Your task to perform on an android device: Turn off the flashlight Image 0: 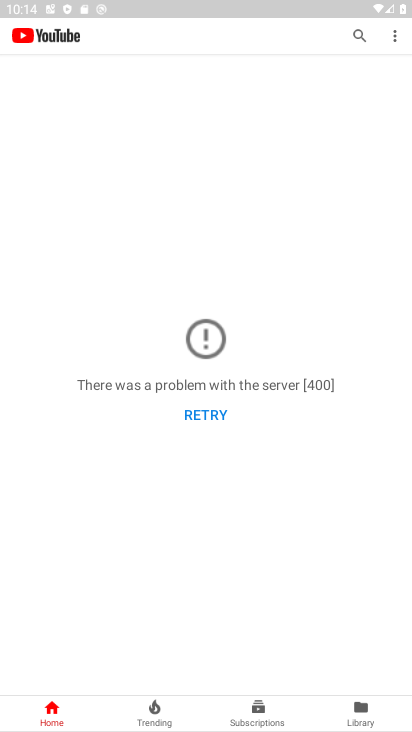
Step 0: press home button
Your task to perform on an android device: Turn off the flashlight Image 1: 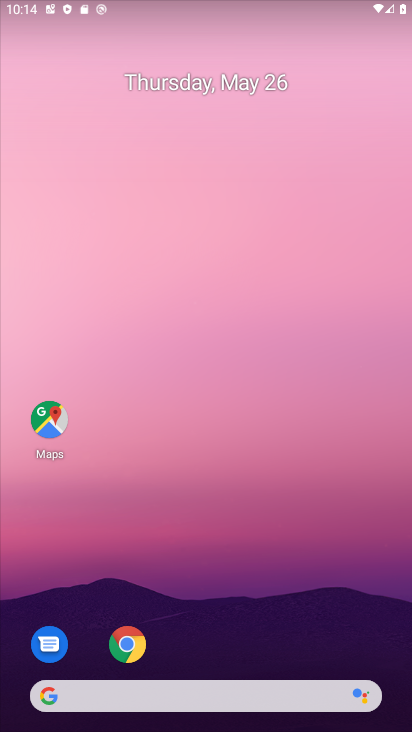
Step 1: drag from (381, 666) to (293, 38)
Your task to perform on an android device: Turn off the flashlight Image 2: 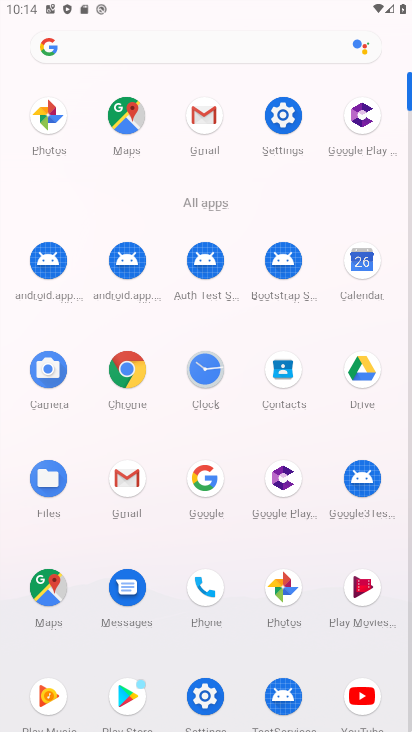
Step 2: click (292, 109)
Your task to perform on an android device: Turn off the flashlight Image 3: 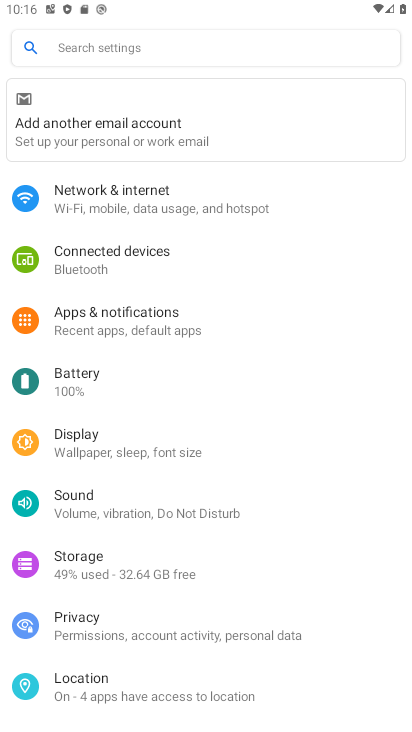
Step 3: task complete